Your task to perform on an android device: turn on data saver in the chrome app Image 0: 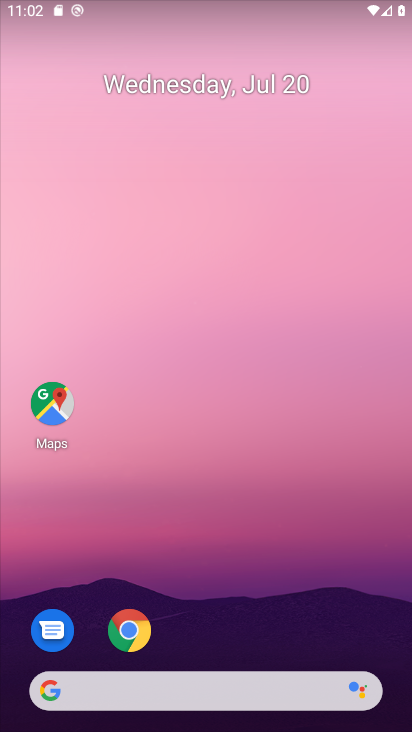
Step 0: click (176, 124)
Your task to perform on an android device: turn on data saver in the chrome app Image 1: 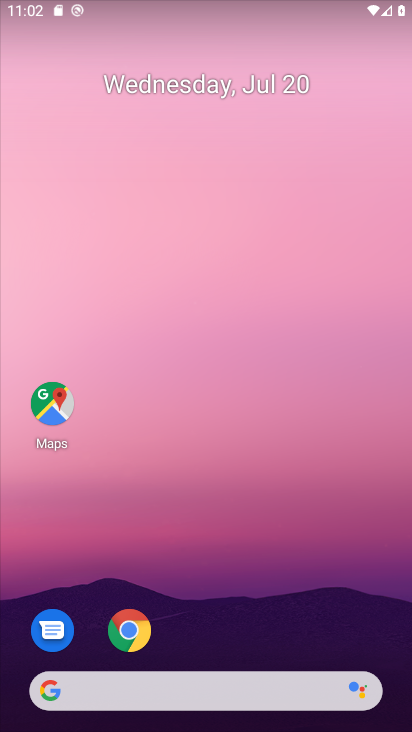
Step 1: drag from (181, 42) to (264, 129)
Your task to perform on an android device: turn on data saver in the chrome app Image 2: 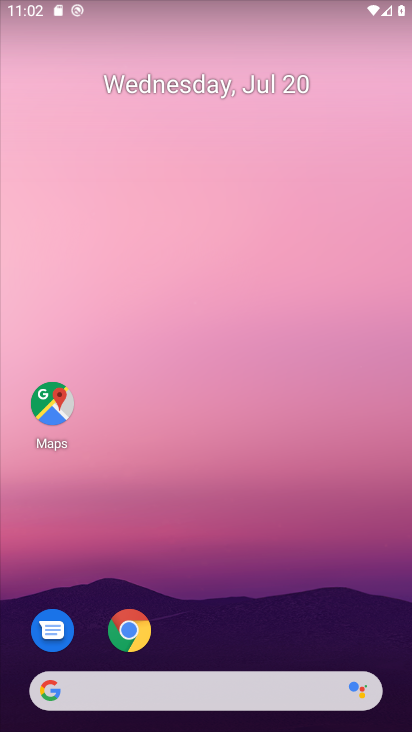
Step 2: drag from (228, 394) to (205, 90)
Your task to perform on an android device: turn on data saver in the chrome app Image 3: 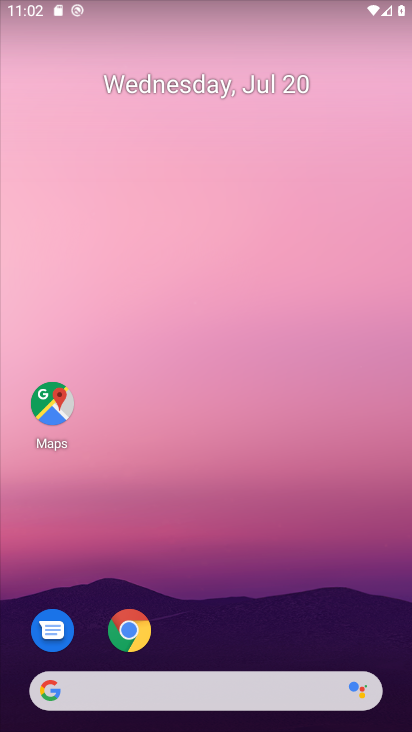
Step 3: drag from (224, 432) to (188, 76)
Your task to perform on an android device: turn on data saver in the chrome app Image 4: 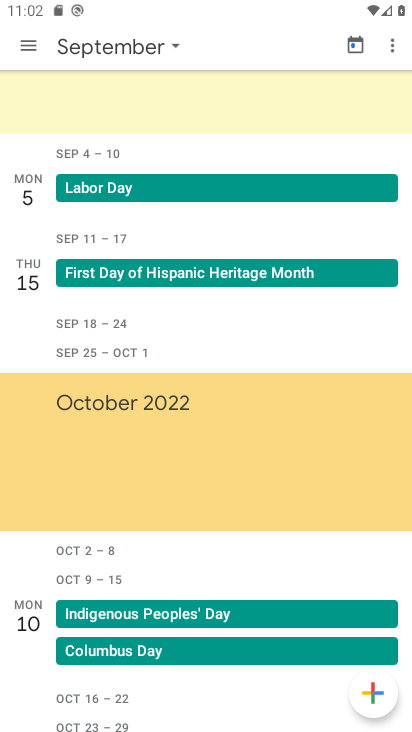
Step 4: drag from (176, 387) to (173, 99)
Your task to perform on an android device: turn on data saver in the chrome app Image 5: 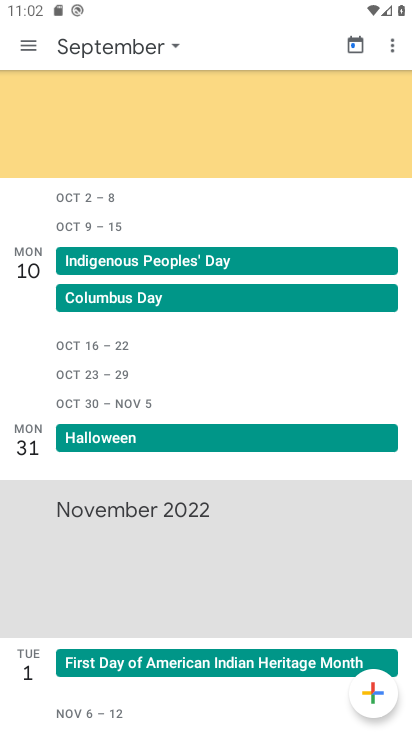
Step 5: press back button
Your task to perform on an android device: turn on data saver in the chrome app Image 6: 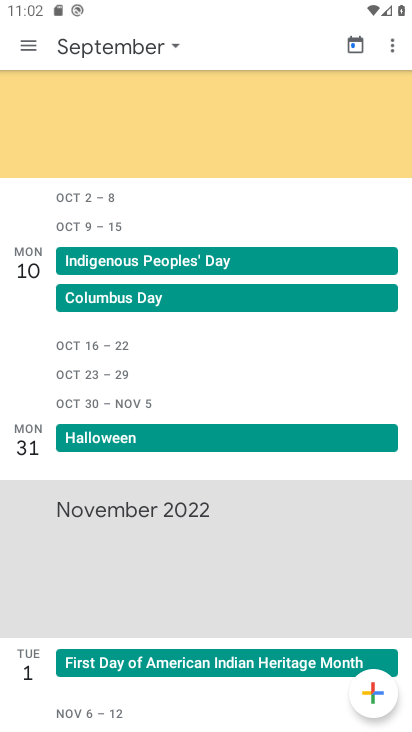
Step 6: press back button
Your task to perform on an android device: turn on data saver in the chrome app Image 7: 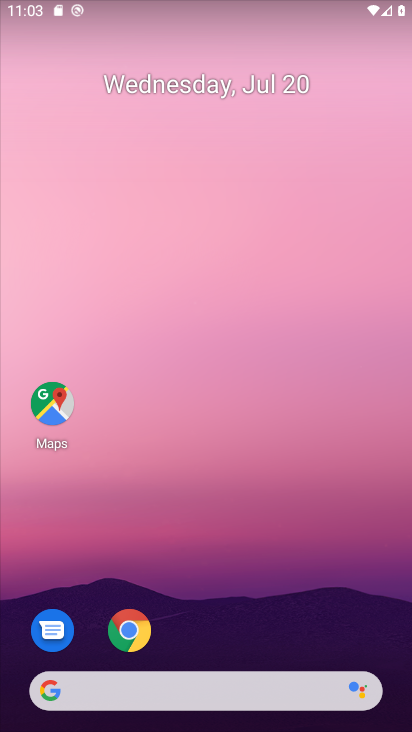
Step 7: drag from (233, 634) to (181, 196)
Your task to perform on an android device: turn on data saver in the chrome app Image 8: 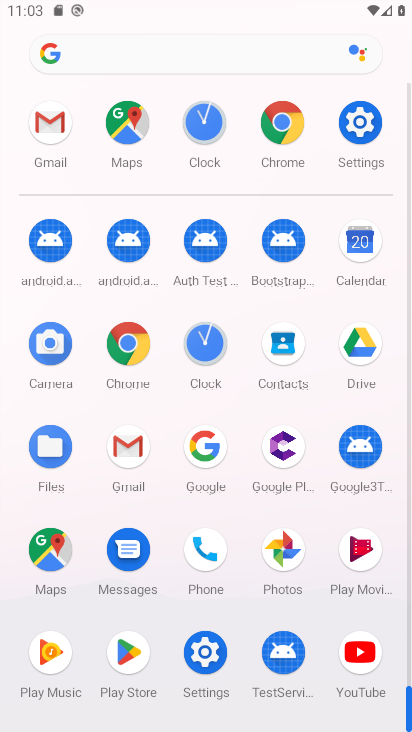
Step 8: click (283, 118)
Your task to perform on an android device: turn on data saver in the chrome app Image 9: 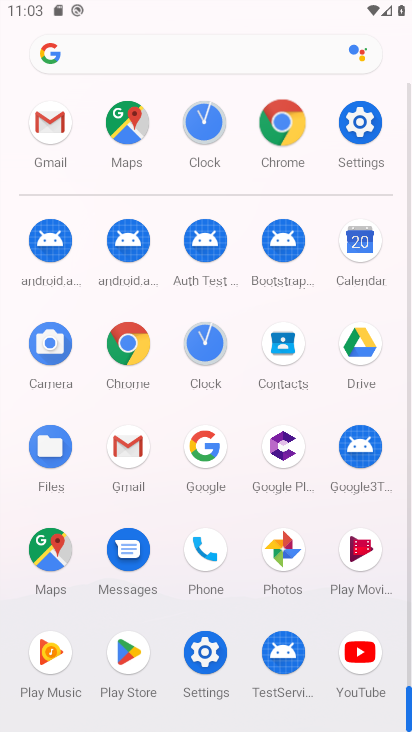
Step 9: click (283, 118)
Your task to perform on an android device: turn on data saver in the chrome app Image 10: 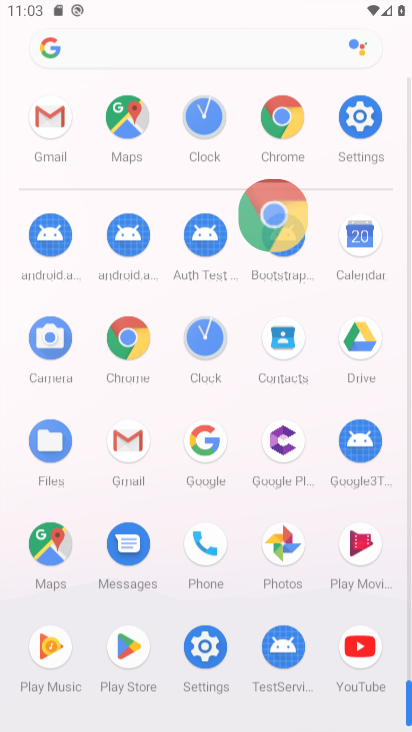
Step 10: click (282, 119)
Your task to perform on an android device: turn on data saver in the chrome app Image 11: 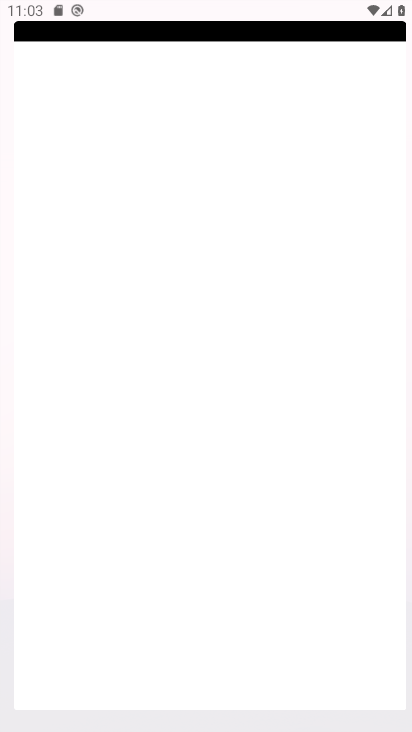
Step 11: click (281, 120)
Your task to perform on an android device: turn on data saver in the chrome app Image 12: 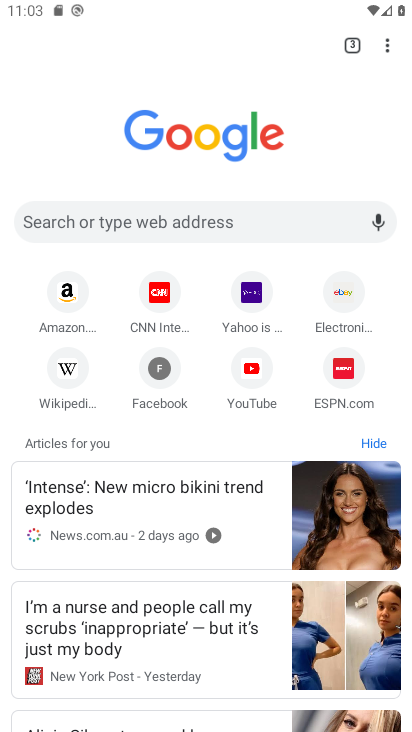
Step 12: drag from (384, 47) to (239, 377)
Your task to perform on an android device: turn on data saver in the chrome app Image 13: 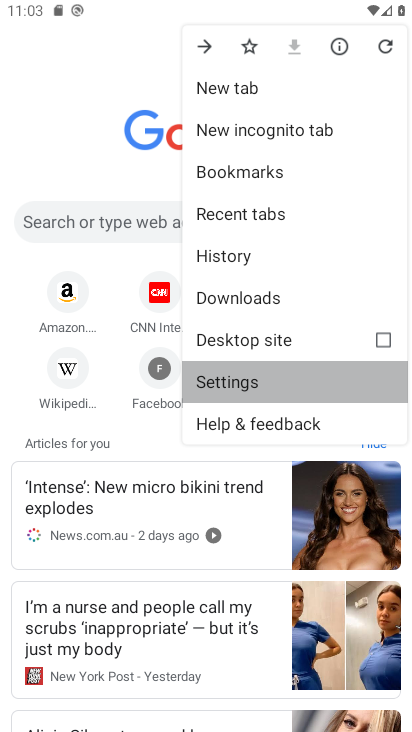
Step 13: click (237, 378)
Your task to perform on an android device: turn on data saver in the chrome app Image 14: 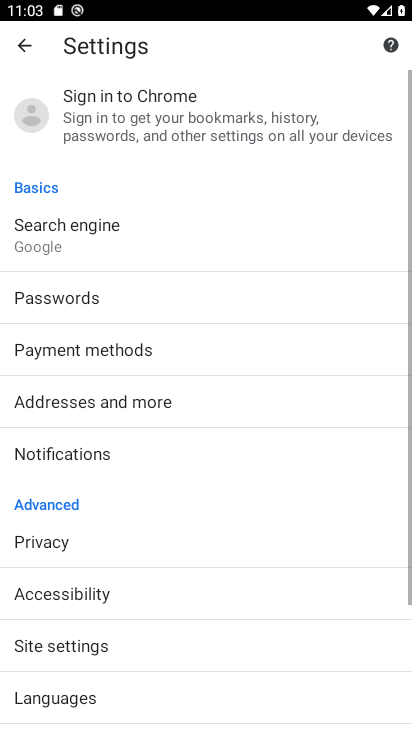
Step 14: drag from (99, 536) to (79, 277)
Your task to perform on an android device: turn on data saver in the chrome app Image 15: 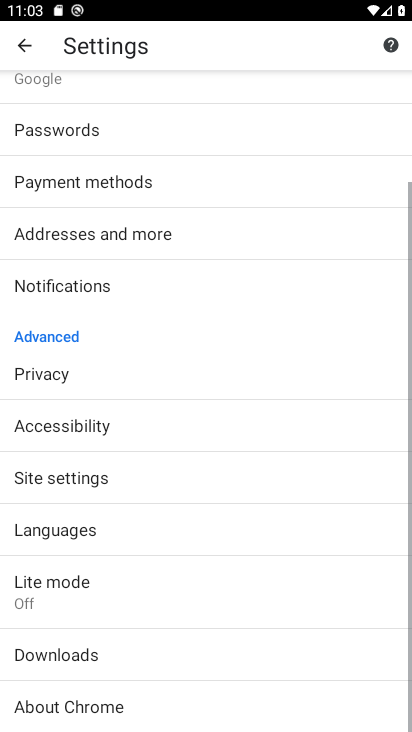
Step 15: drag from (75, 560) to (74, 362)
Your task to perform on an android device: turn on data saver in the chrome app Image 16: 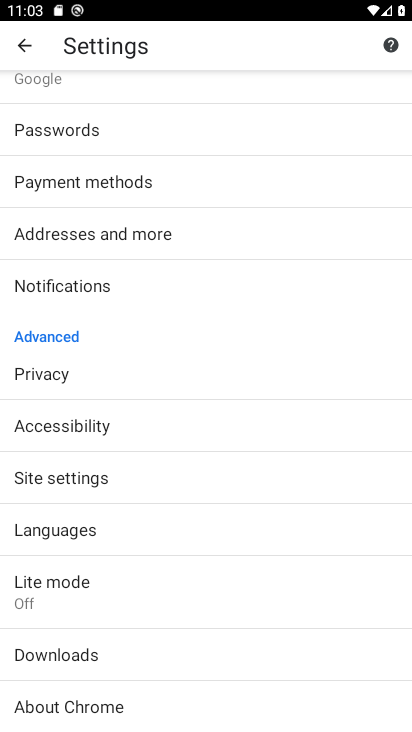
Step 16: drag from (110, 580) to (95, 353)
Your task to perform on an android device: turn on data saver in the chrome app Image 17: 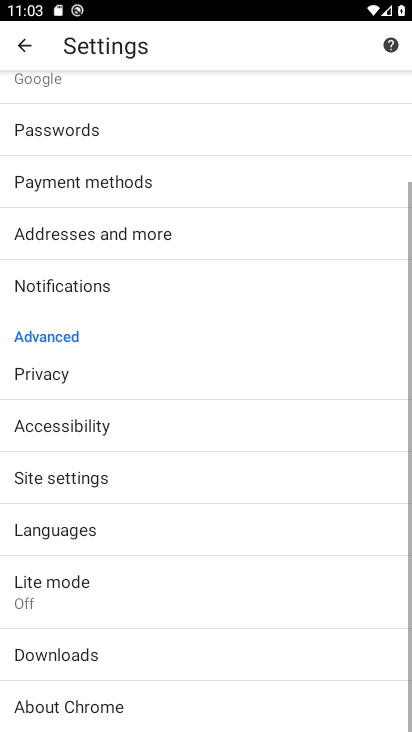
Step 17: click (42, 612)
Your task to perform on an android device: turn on data saver in the chrome app Image 18: 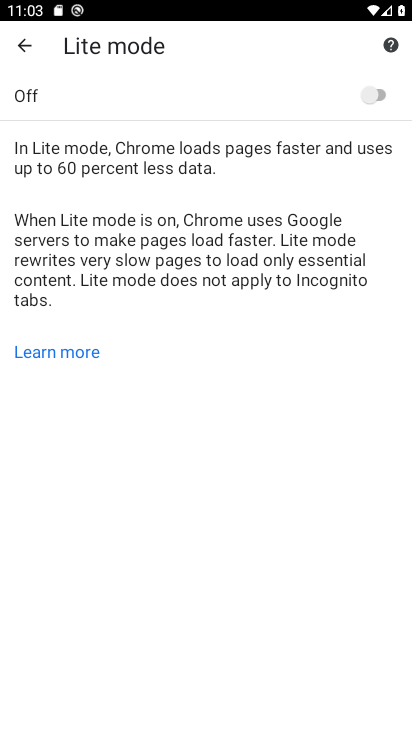
Step 18: click (365, 88)
Your task to perform on an android device: turn on data saver in the chrome app Image 19: 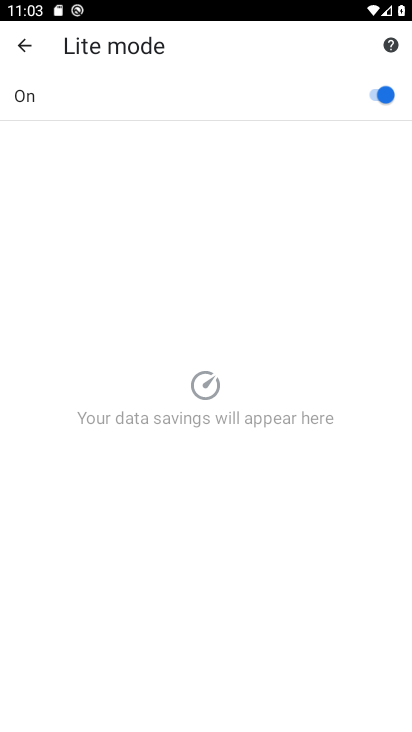
Step 19: task complete